Your task to perform on an android device: set the timer Image 0: 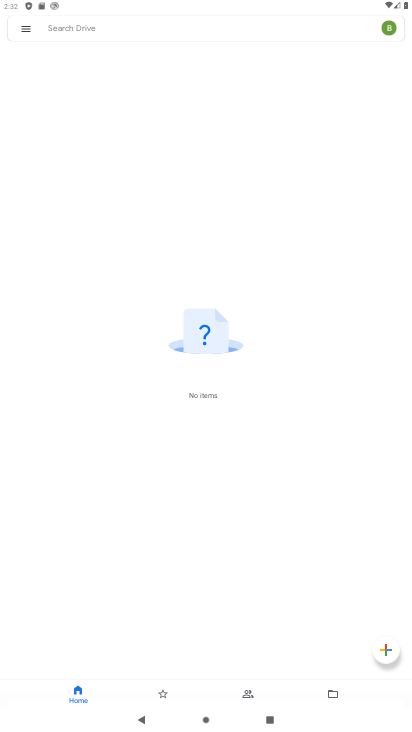
Step 0: press home button
Your task to perform on an android device: set the timer Image 1: 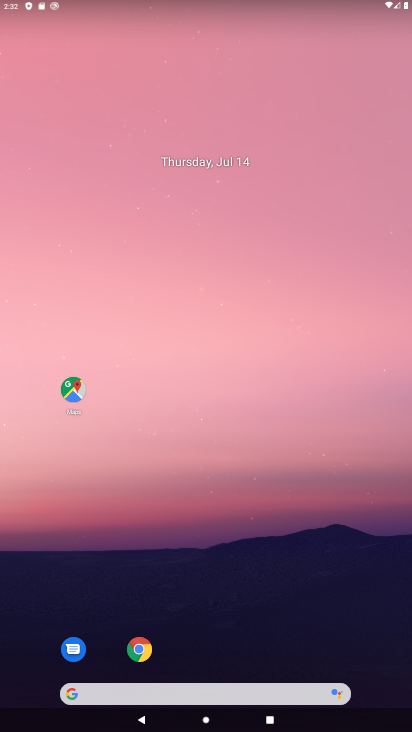
Step 1: drag from (239, 657) to (219, 9)
Your task to perform on an android device: set the timer Image 2: 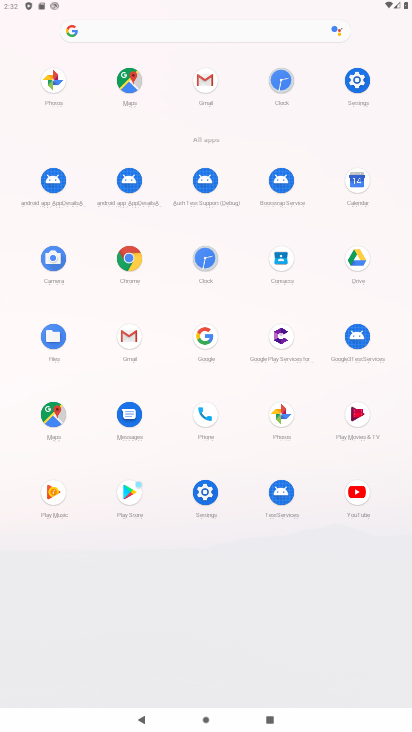
Step 2: click (206, 246)
Your task to perform on an android device: set the timer Image 3: 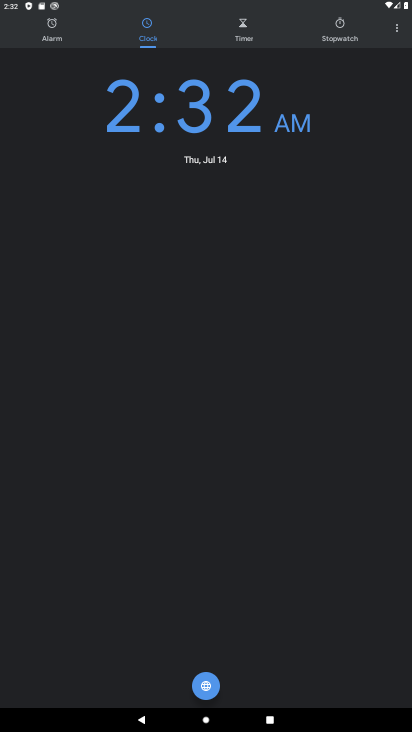
Step 3: click (246, 34)
Your task to perform on an android device: set the timer Image 4: 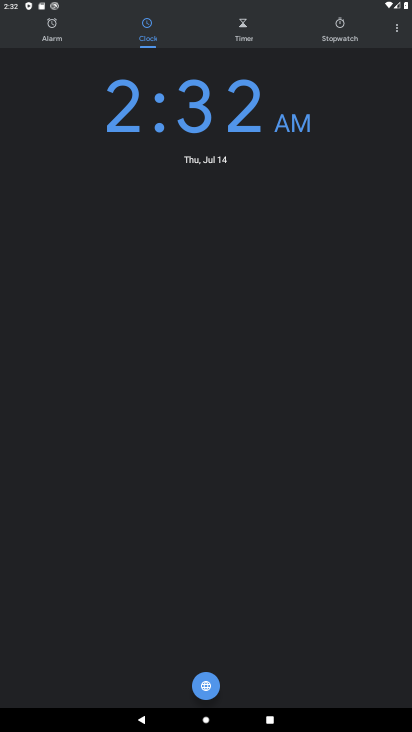
Step 4: click (240, 18)
Your task to perform on an android device: set the timer Image 5: 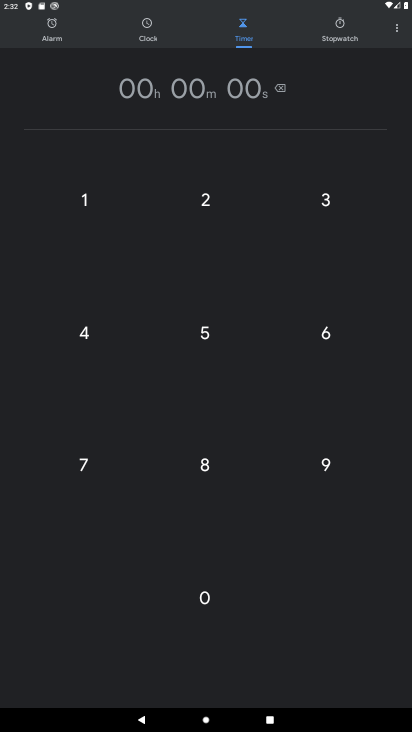
Step 5: click (212, 462)
Your task to perform on an android device: set the timer Image 6: 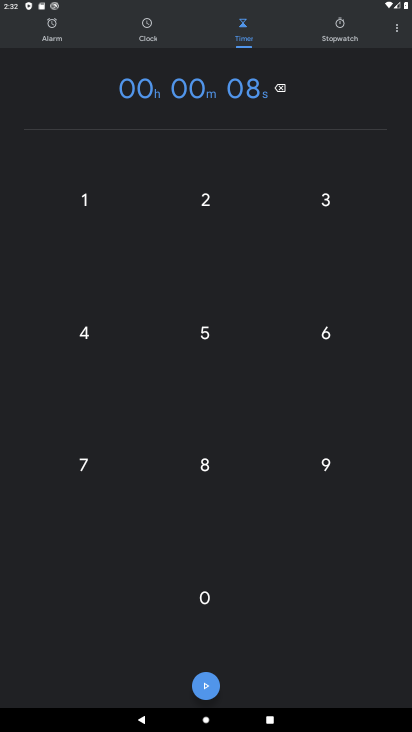
Step 6: click (206, 323)
Your task to perform on an android device: set the timer Image 7: 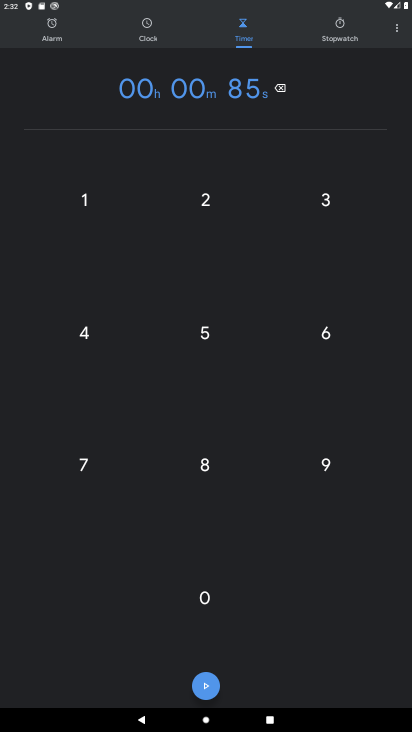
Step 7: click (86, 451)
Your task to perform on an android device: set the timer Image 8: 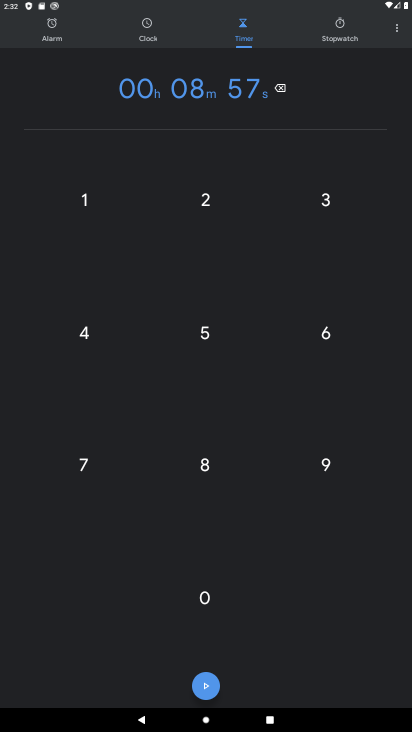
Step 8: click (221, 675)
Your task to perform on an android device: set the timer Image 9: 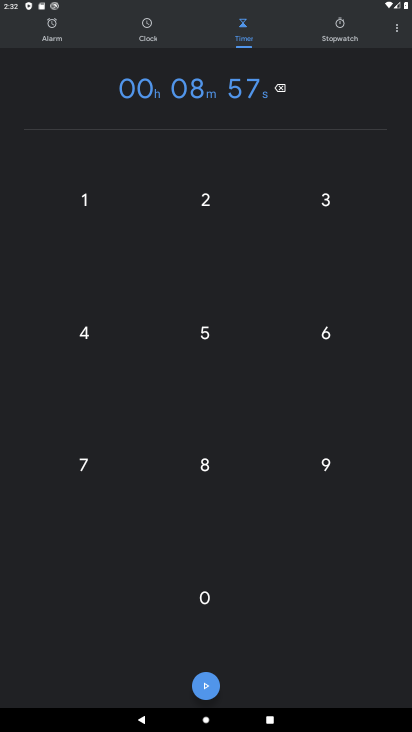
Step 9: click (214, 676)
Your task to perform on an android device: set the timer Image 10: 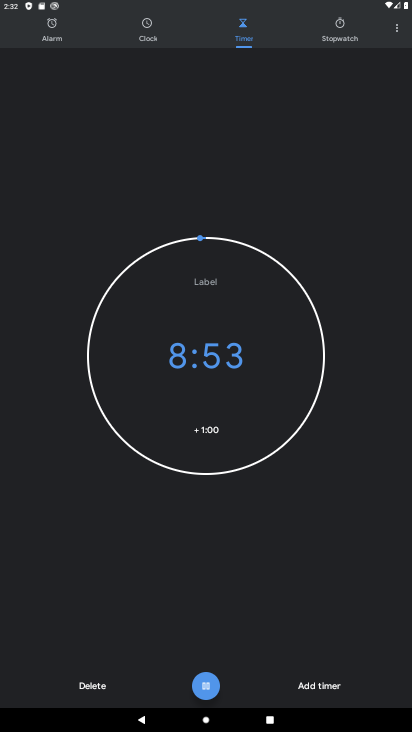
Step 10: task complete